Your task to perform on an android device: check the backup settings in the google photos Image 0: 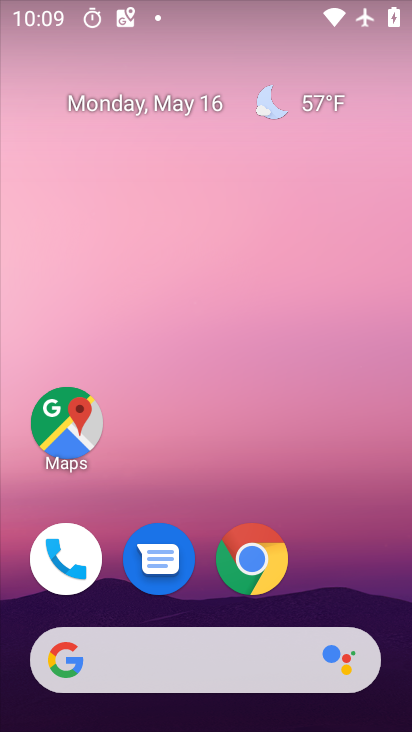
Step 0: drag from (321, 564) to (286, 41)
Your task to perform on an android device: check the backup settings in the google photos Image 1: 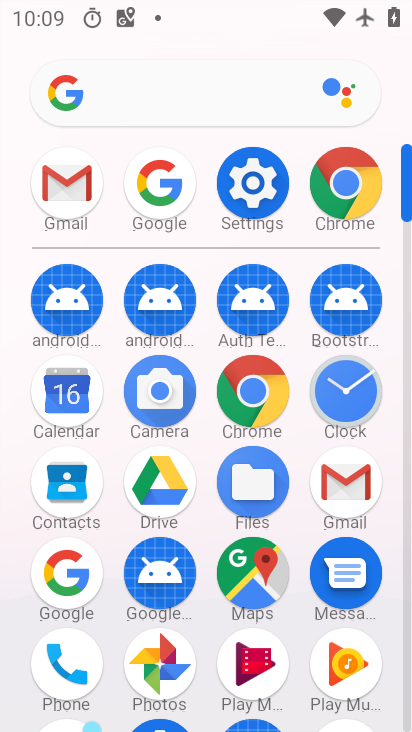
Step 1: click (162, 654)
Your task to perform on an android device: check the backup settings in the google photos Image 2: 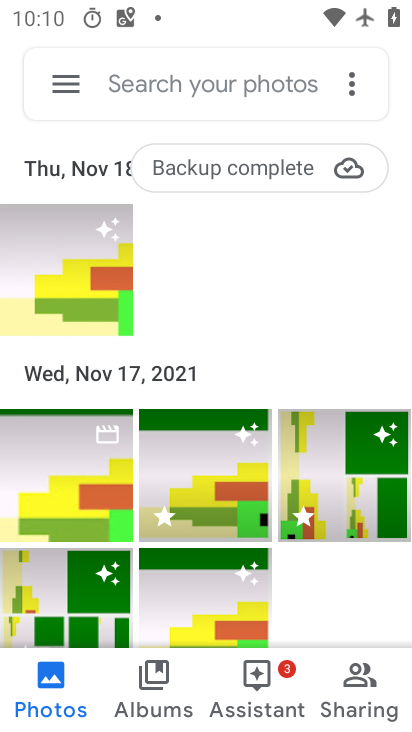
Step 2: click (62, 70)
Your task to perform on an android device: check the backup settings in the google photos Image 3: 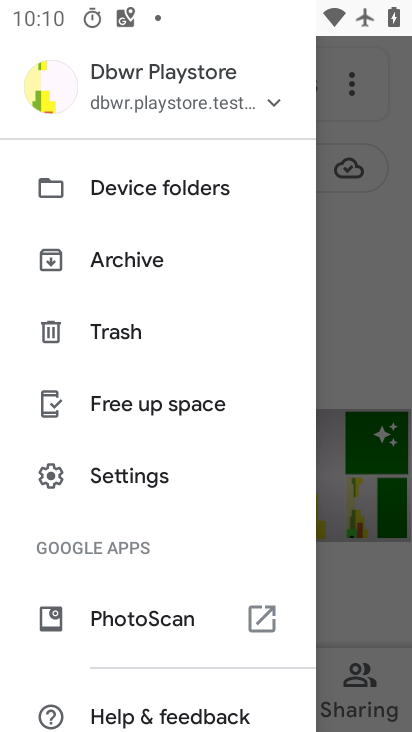
Step 3: drag from (135, 573) to (215, 154)
Your task to perform on an android device: check the backup settings in the google photos Image 4: 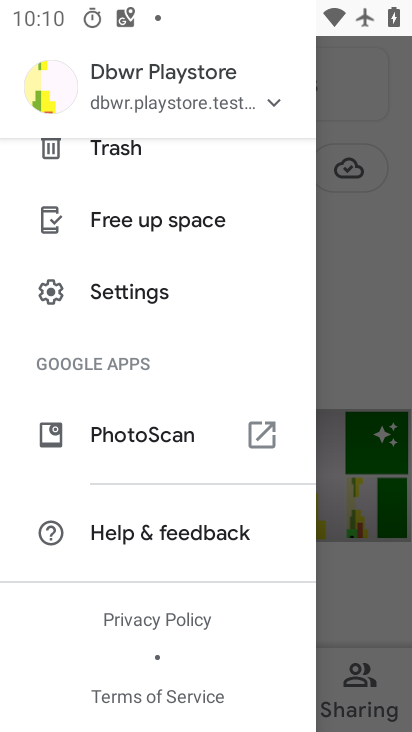
Step 4: click (113, 290)
Your task to perform on an android device: check the backup settings in the google photos Image 5: 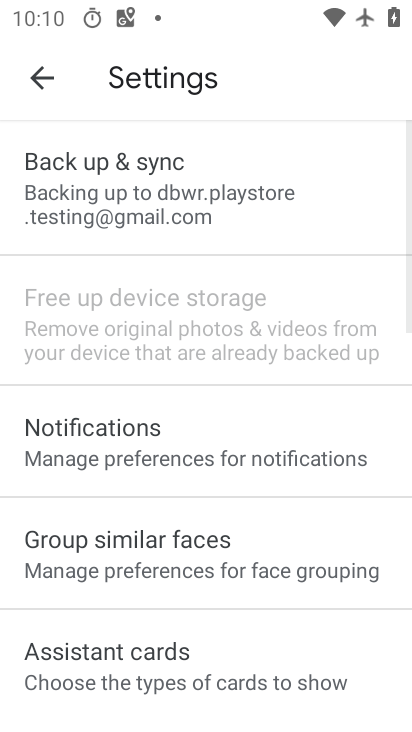
Step 5: click (190, 196)
Your task to perform on an android device: check the backup settings in the google photos Image 6: 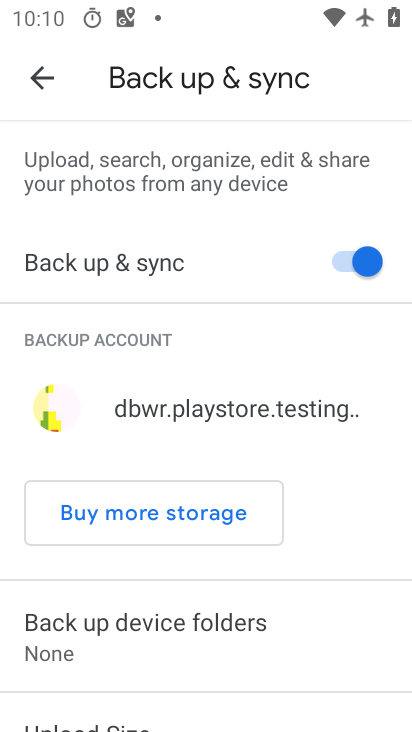
Step 6: task complete